Your task to perform on an android device: change notifications settings Image 0: 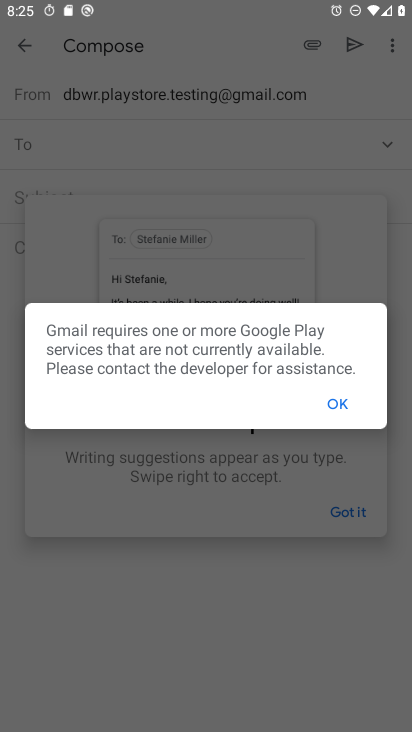
Step 0: press home button
Your task to perform on an android device: change notifications settings Image 1: 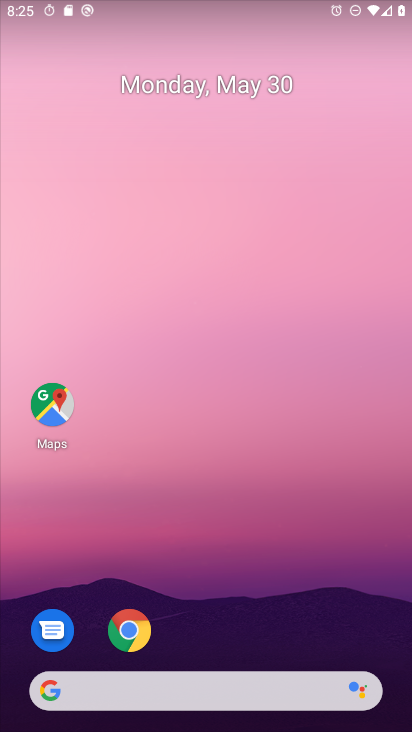
Step 1: drag from (341, 624) to (268, 52)
Your task to perform on an android device: change notifications settings Image 2: 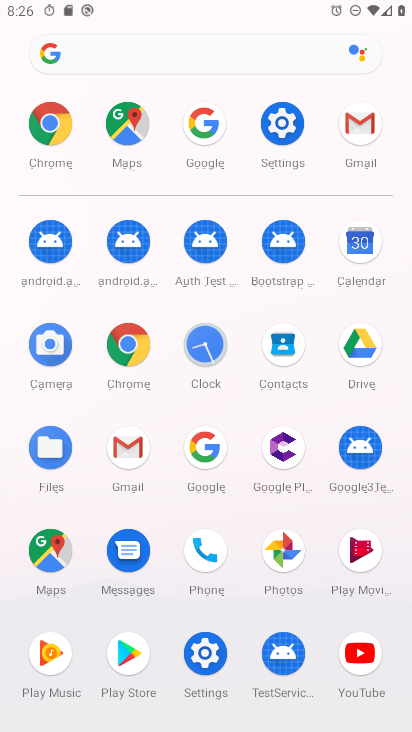
Step 2: click (198, 667)
Your task to perform on an android device: change notifications settings Image 3: 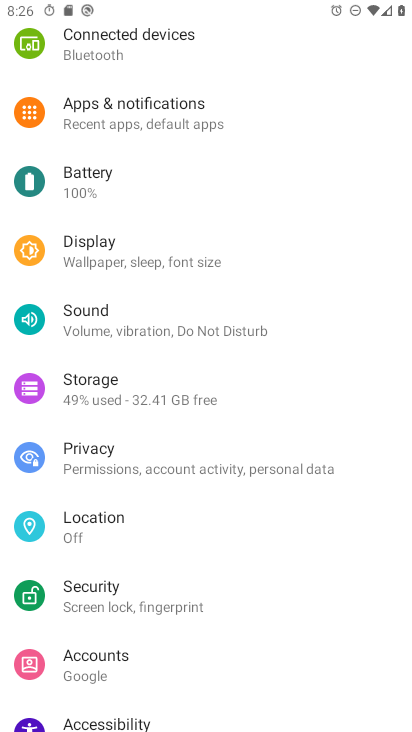
Step 3: click (183, 103)
Your task to perform on an android device: change notifications settings Image 4: 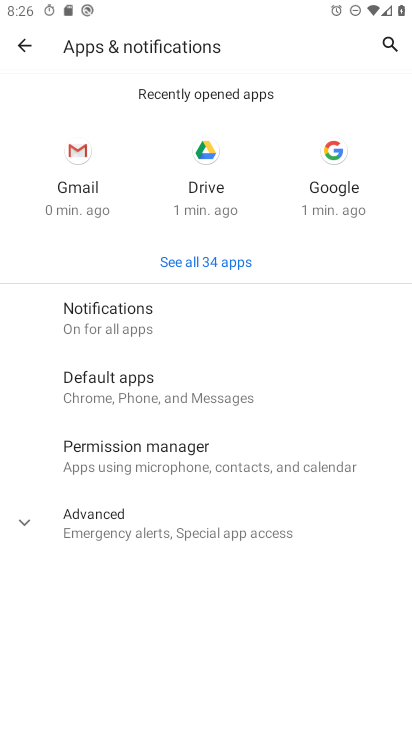
Step 4: click (187, 317)
Your task to perform on an android device: change notifications settings Image 5: 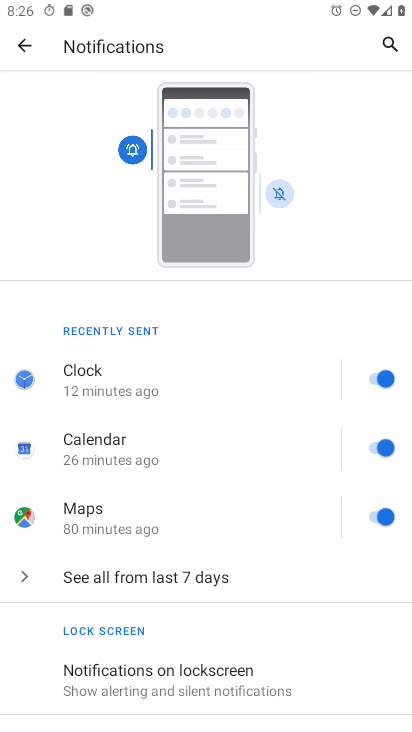
Step 5: task complete